Your task to perform on an android device: allow notifications from all sites in the chrome app Image 0: 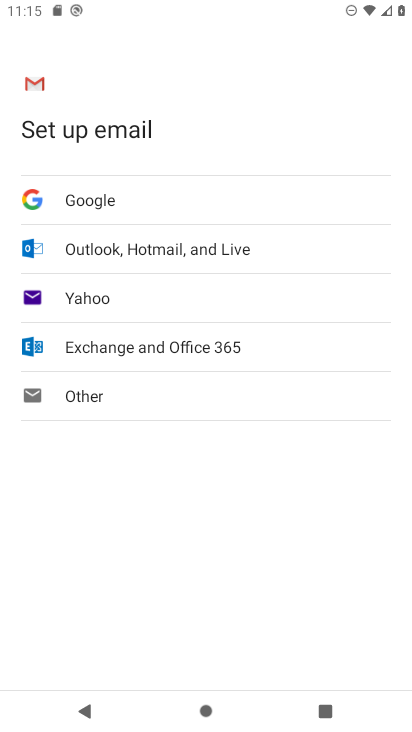
Step 0: press home button
Your task to perform on an android device: allow notifications from all sites in the chrome app Image 1: 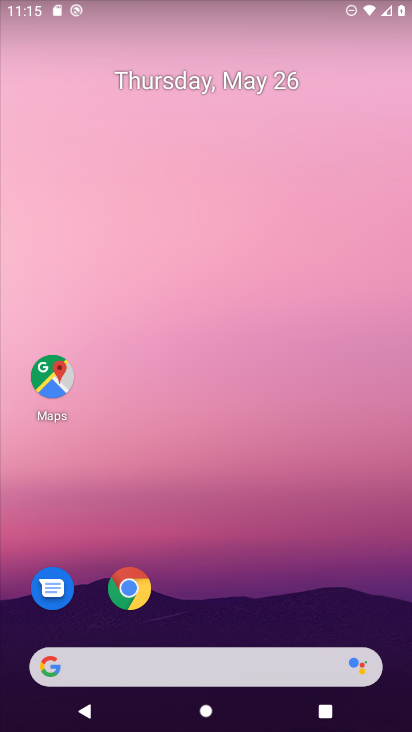
Step 1: click (131, 586)
Your task to perform on an android device: allow notifications from all sites in the chrome app Image 2: 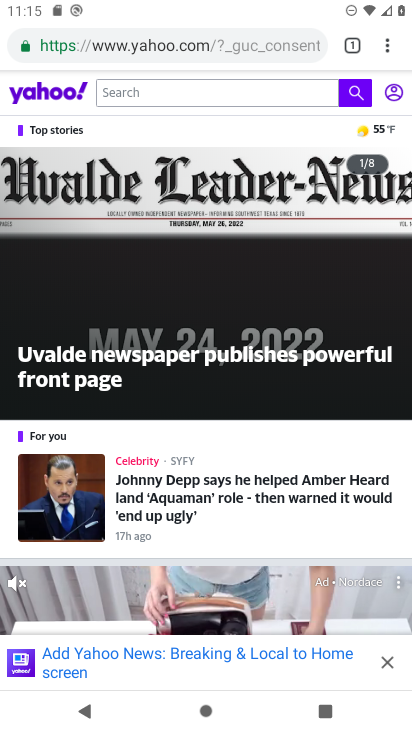
Step 2: click (386, 49)
Your task to perform on an android device: allow notifications from all sites in the chrome app Image 3: 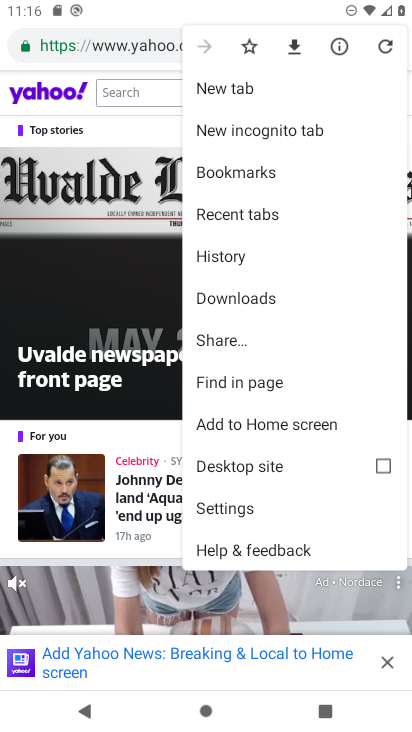
Step 3: click (223, 499)
Your task to perform on an android device: allow notifications from all sites in the chrome app Image 4: 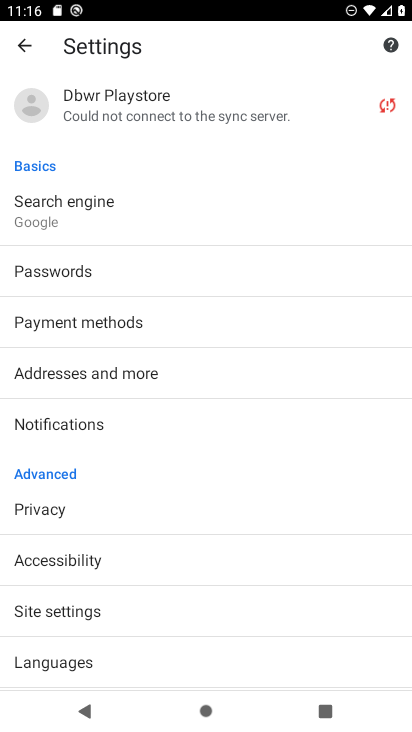
Step 4: click (61, 610)
Your task to perform on an android device: allow notifications from all sites in the chrome app Image 5: 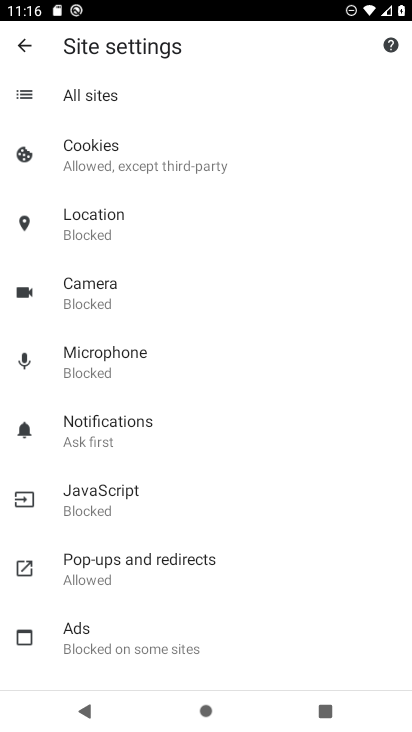
Step 5: click (99, 439)
Your task to perform on an android device: allow notifications from all sites in the chrome app Image 6: 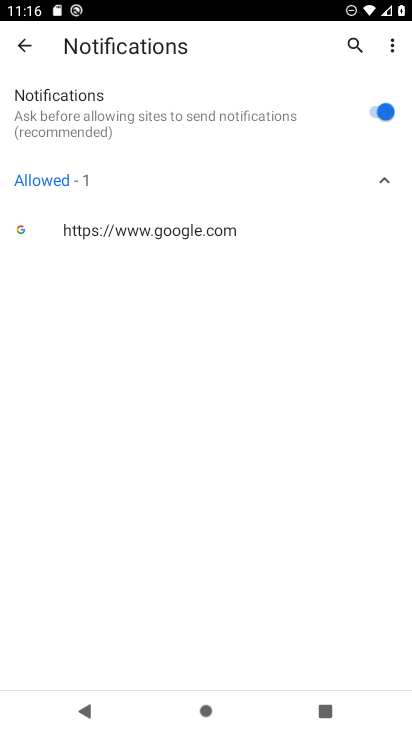
Step 6: task complete